Your task to perform on an android device: open a new tab in the chrome app Image 0: 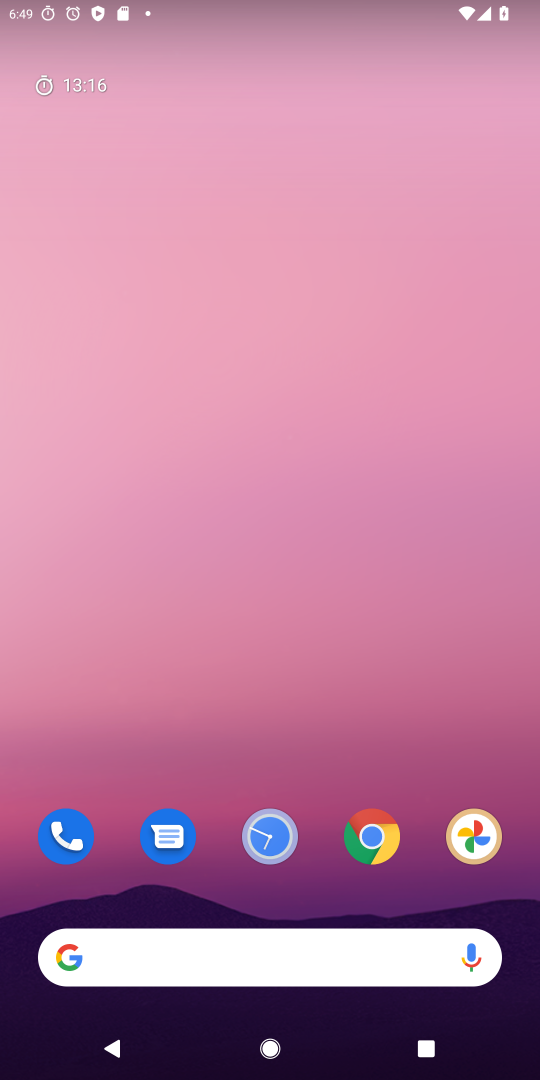
Step 0: drag from (301, 650) to (359, 0)
Your task to perform on an android device: open a new tab in the chrome app Image 1: 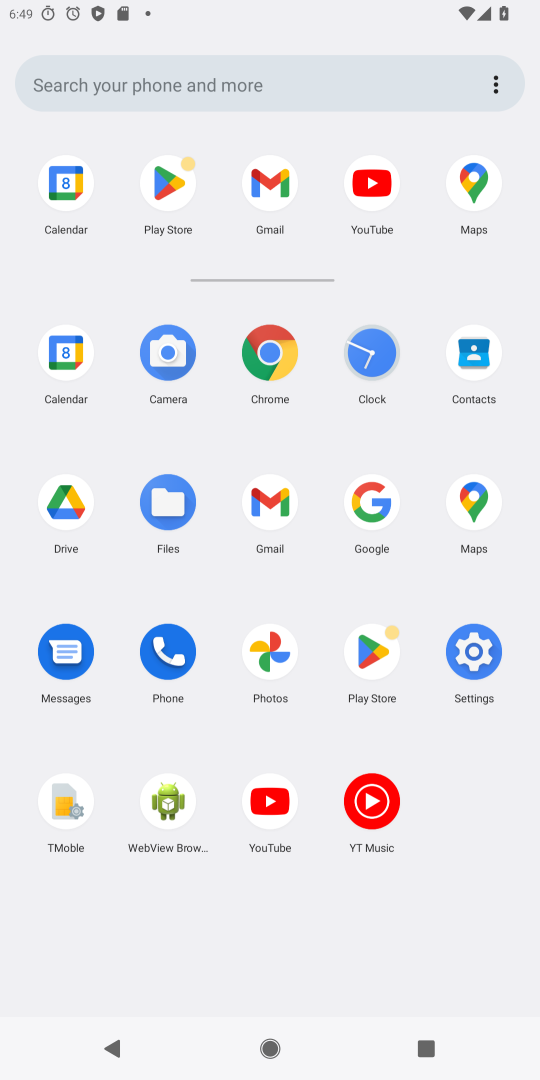
Step 1: drag from (280, 666) to (329, 0)
Your task to perform on an android device: open a new tab in the chrome app Image 2: 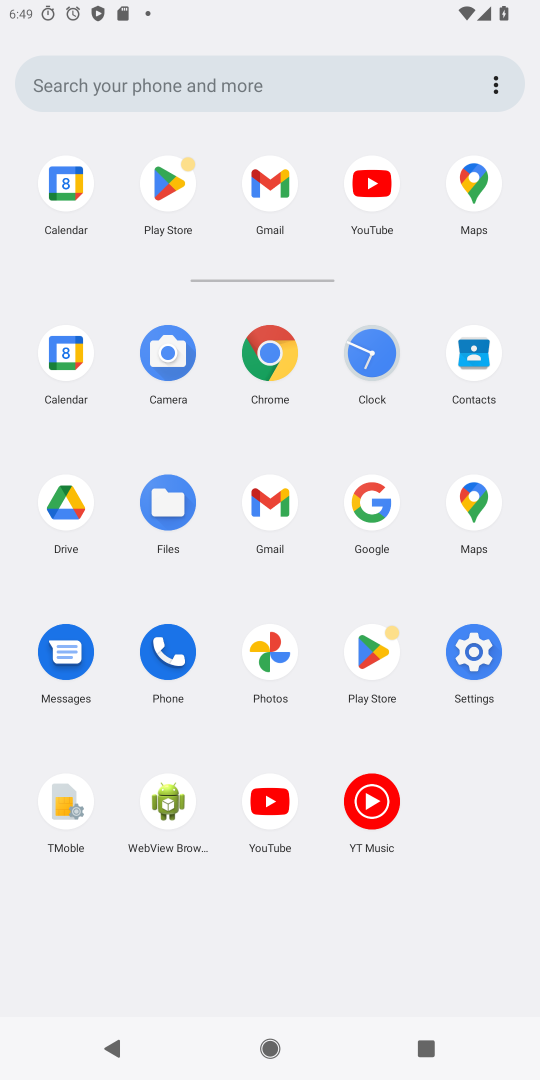
Step 2: click (287, 365)
Your task to perform on an android device: open a new tab in the chrome app Image 3: 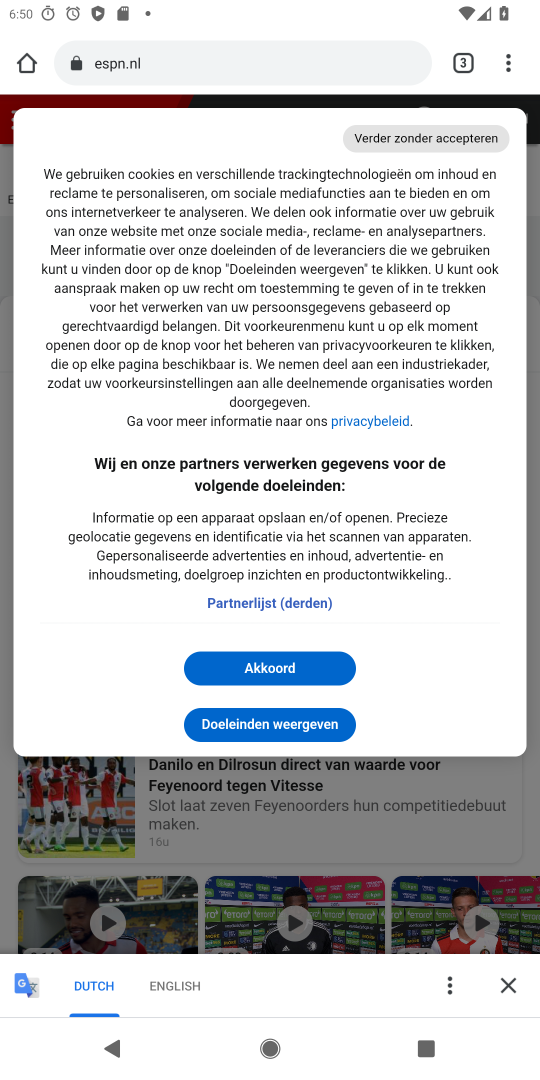
Step 3: press home button
Your task to perform on an android device: open a new tab in the chrome app Image 4: 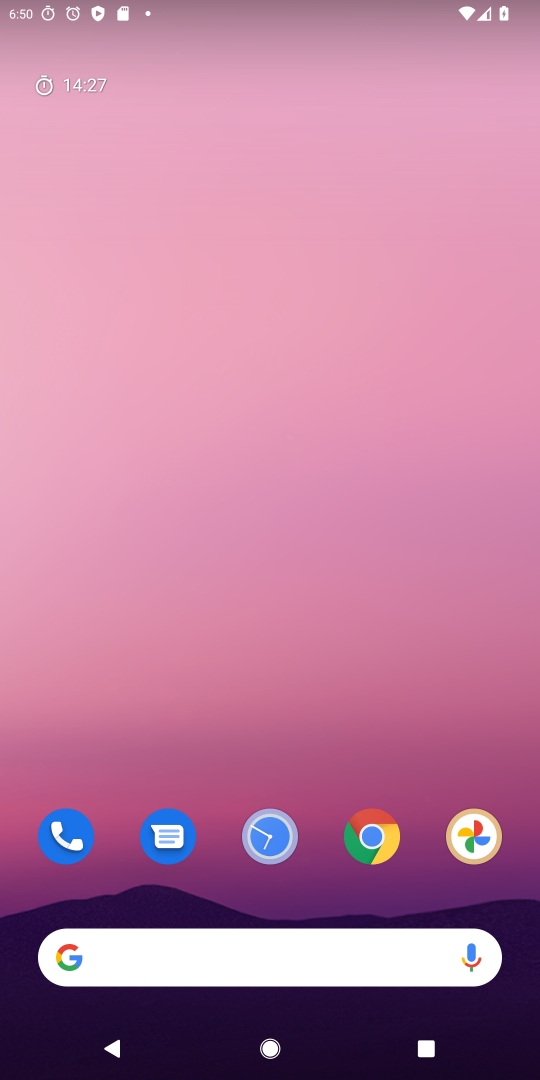
Step 4: drag from (323, 859) to (393, 145)
Your task to perform on an android device: open a new tab in the chrome app Image 5: 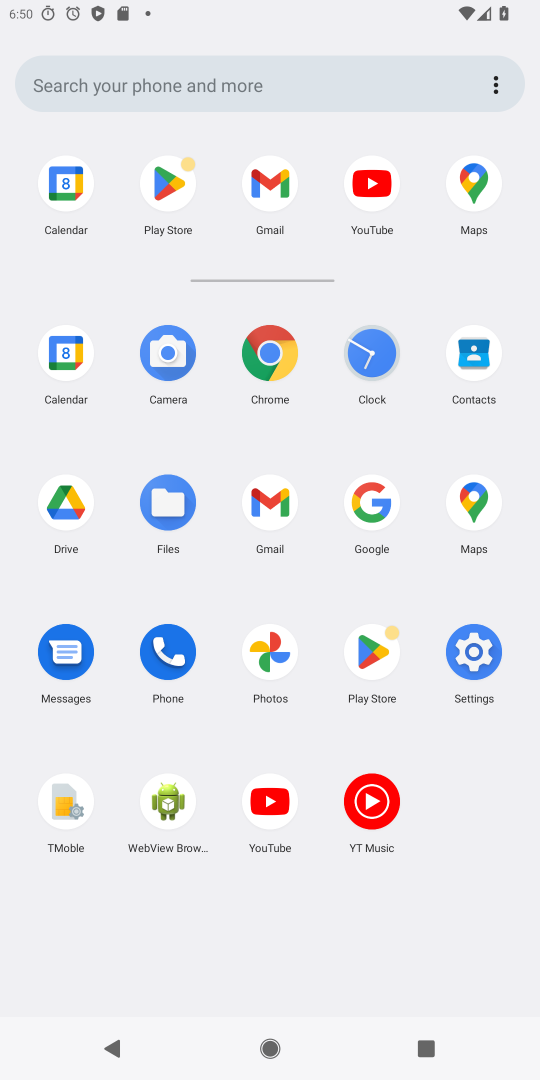
Step 5: click (265, 361)
Your task to perform on an android device: open a new tab in the chrome app Image 6: 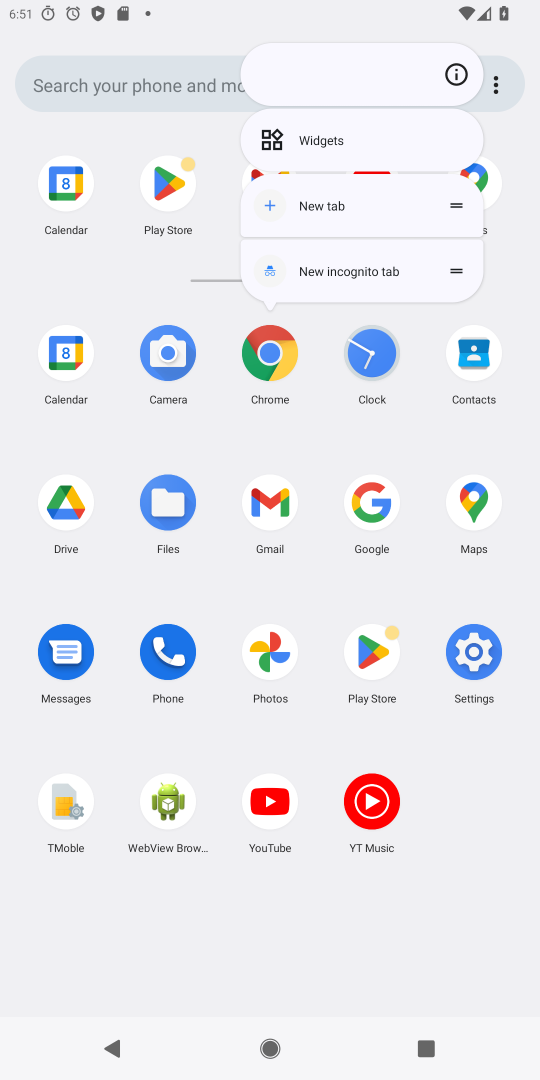
Step 6: click (273, 361)
Your task to perform on an android device: open a new tab in the chrome app Image 7: 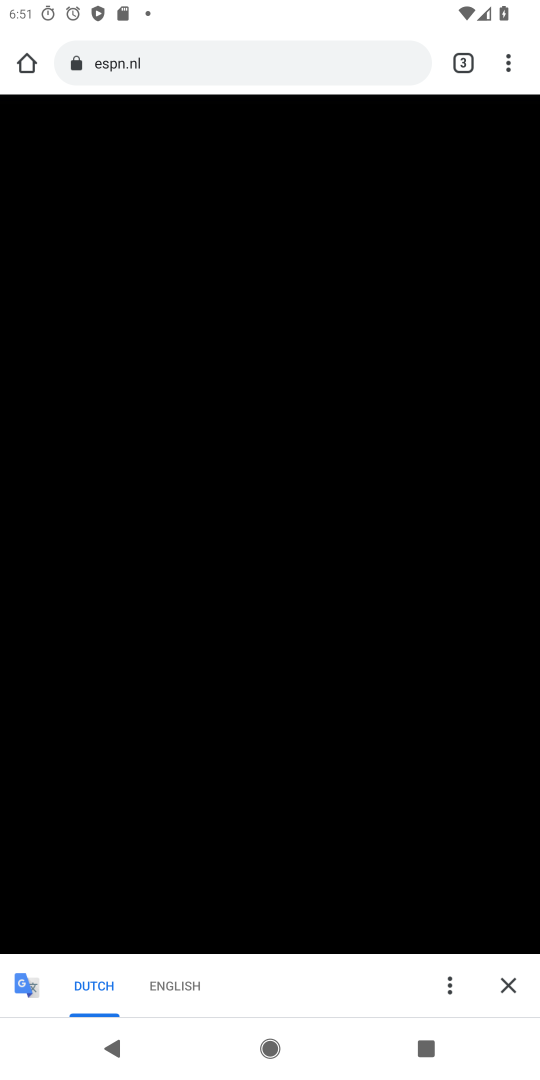
Step 7: click (458, 66)
Your task to perform on an android device: open a new tab in the chrome app Image 8: 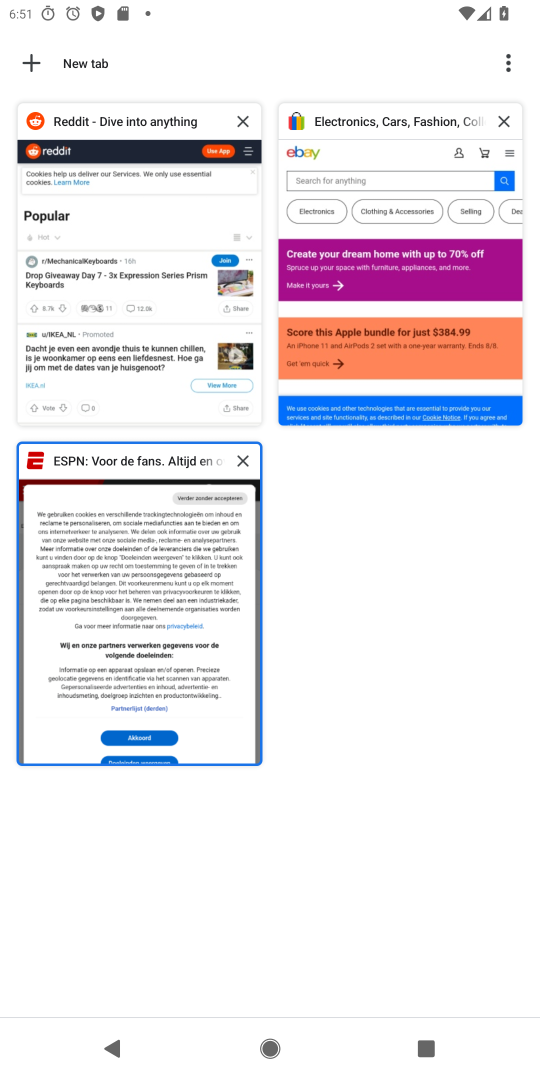
Step 8: click (464, 69)
Your task to perform on an android device: open a new tab in the chrome app Image 9: 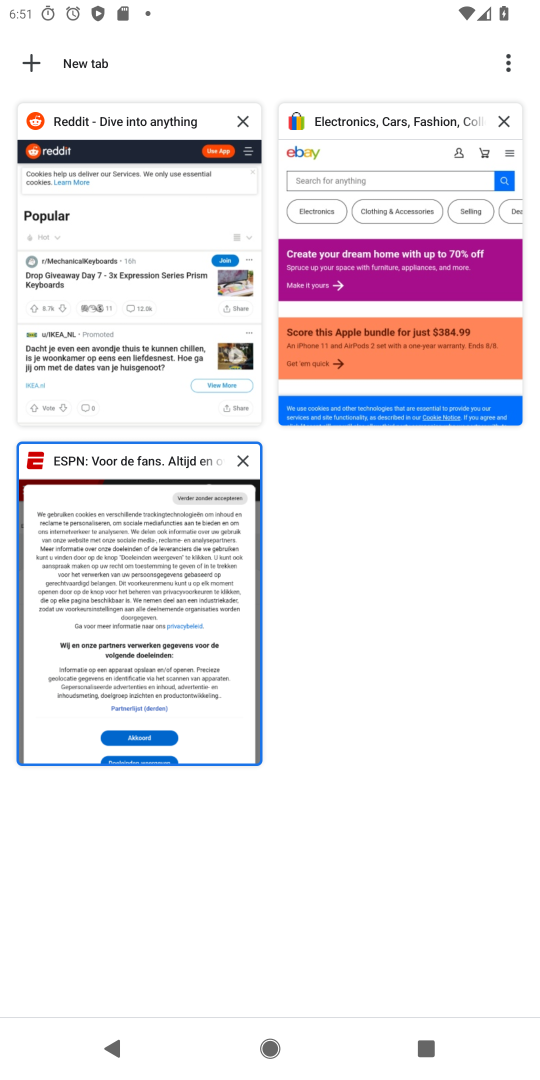
Step 9: click (87, 63)
Your task to perform on an android device: open a new tab in the chrome app Image 10: 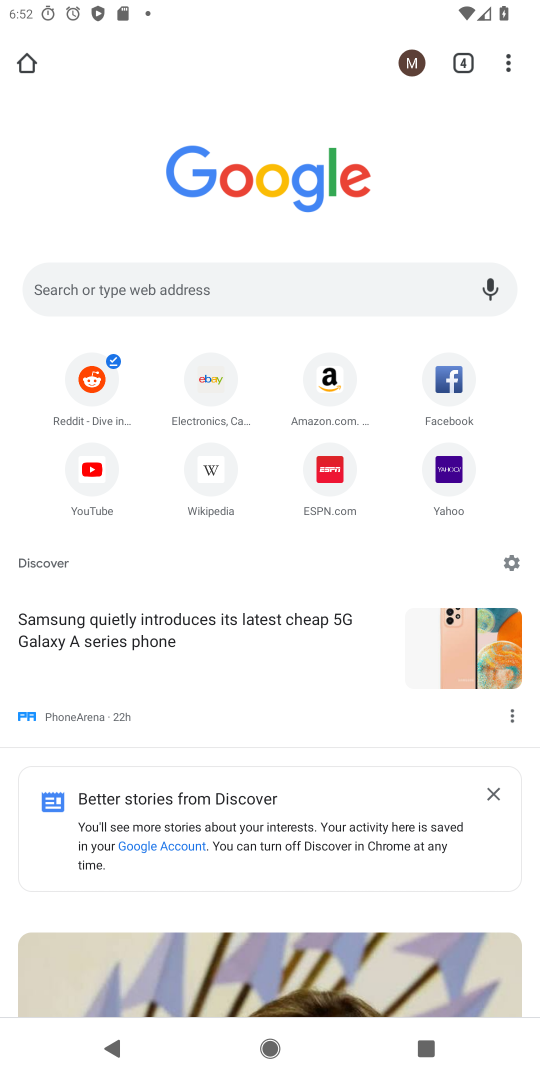
Step 10: task complete